Your task to perform on an android device: Open Google Chrome and click the shortcut for Amazon.com Image 0: 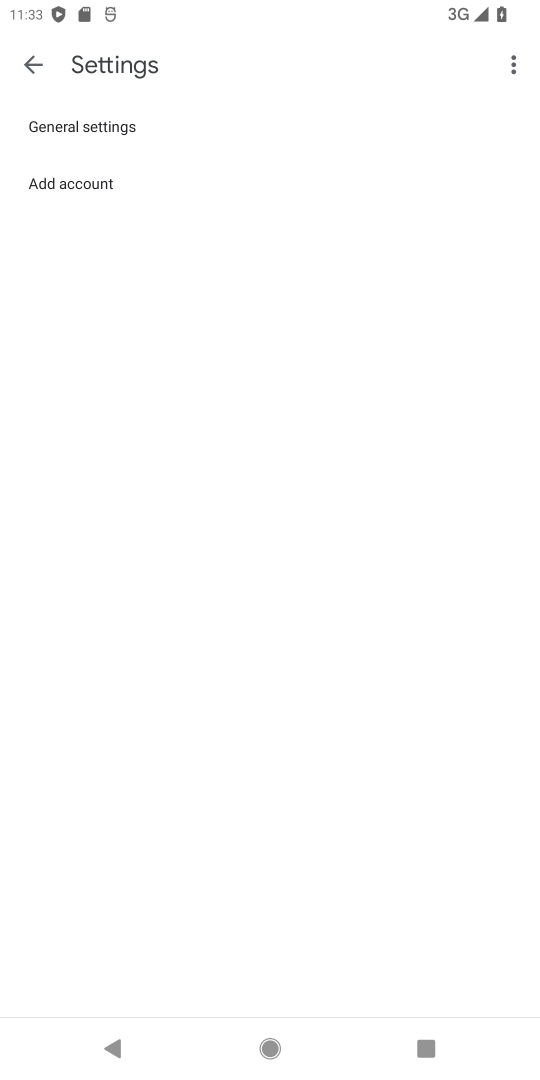
Step 0: press home button
Your task to perform on an android device: Open Google Chrome and click the shortcut for Amazon.com Image 1: 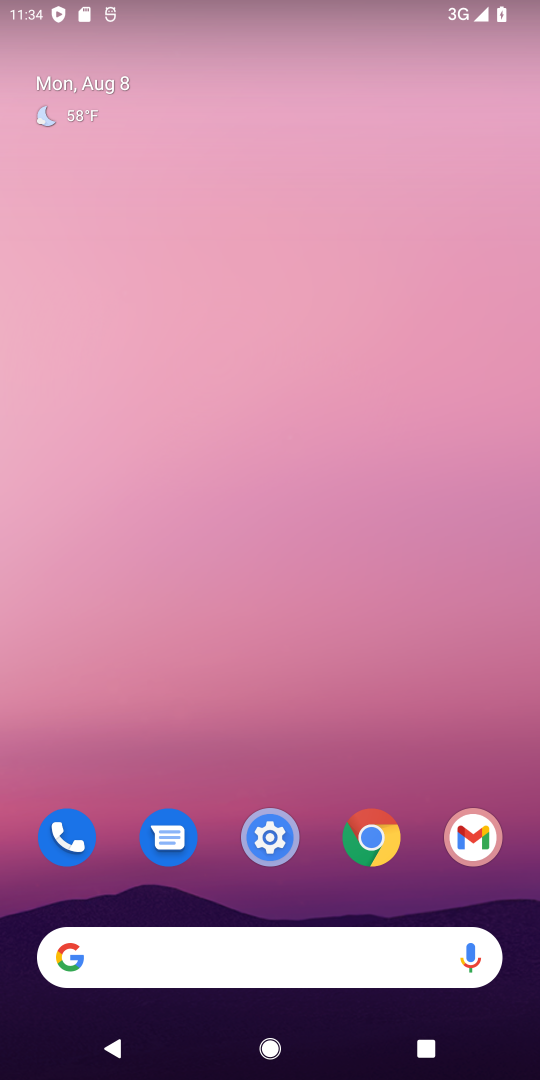
Step 1: click (366, 840)
Your task to perform on an android device: Open Google Chrome and click the shortcut for Amazon.com Image 2: 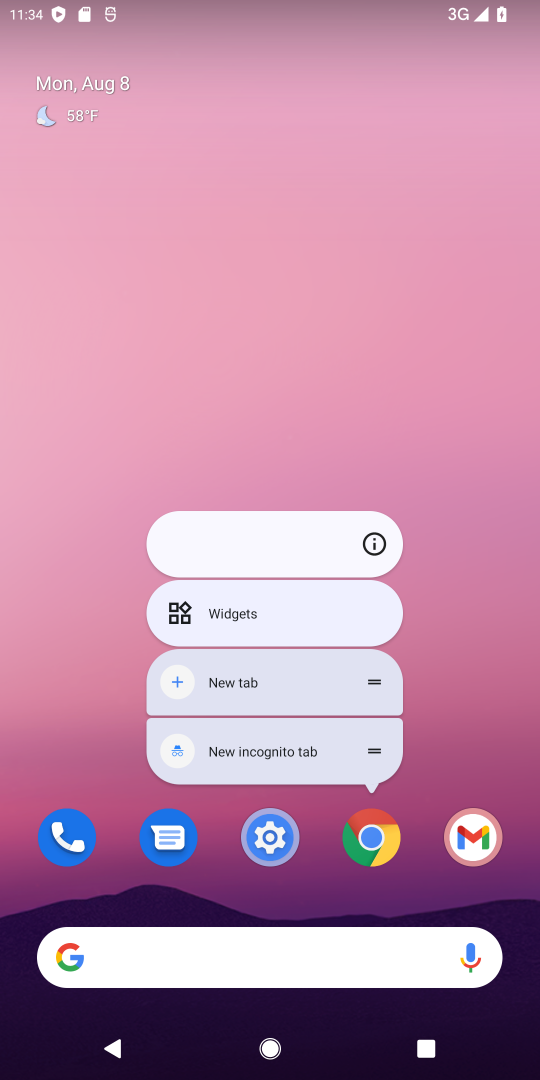
Step 2: click (368, 837)
Your task to perform on an android device: Open Google Chrome and click the shortcut for Amazon.com Image 3: 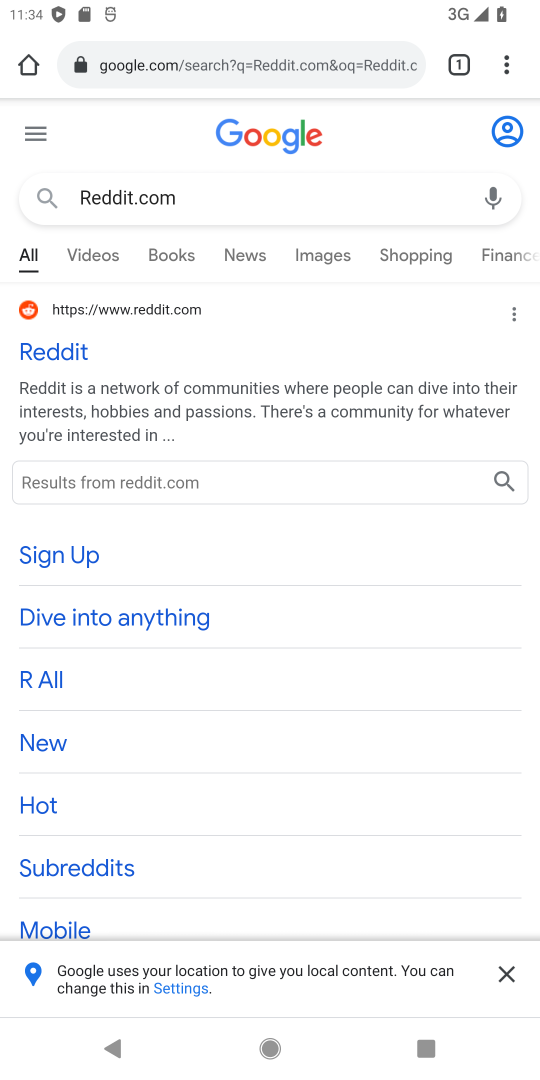
Step 3: click (292, 59)
Your task to perform on an android device: Open Google Chrome and click the shortcut for Amazon.com Image 4: 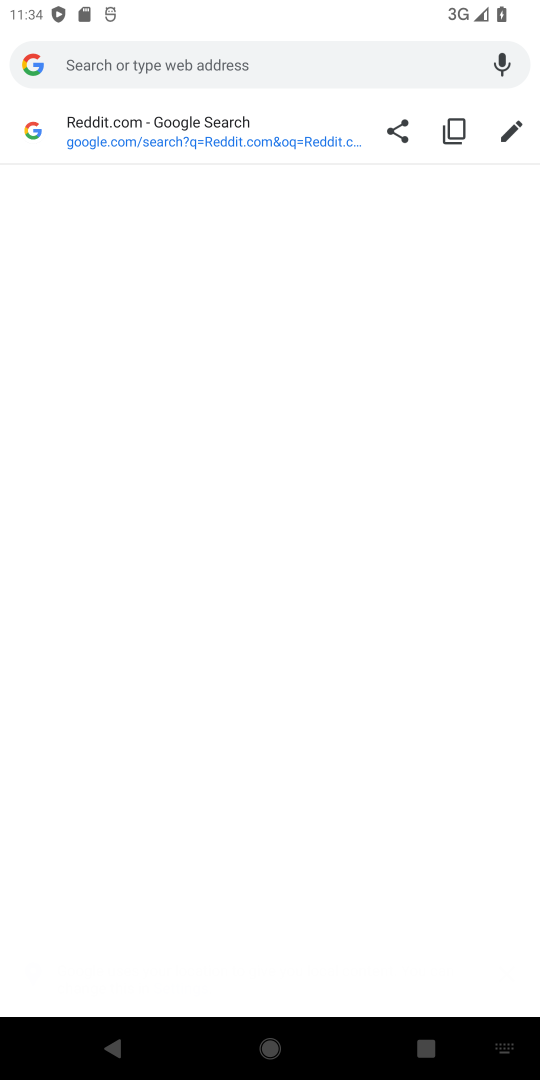
Step 4: type " Amazon.com"
Your task to perform on an android device: Open Google Chrome and click the shortcut for Amazon.com Image 5: 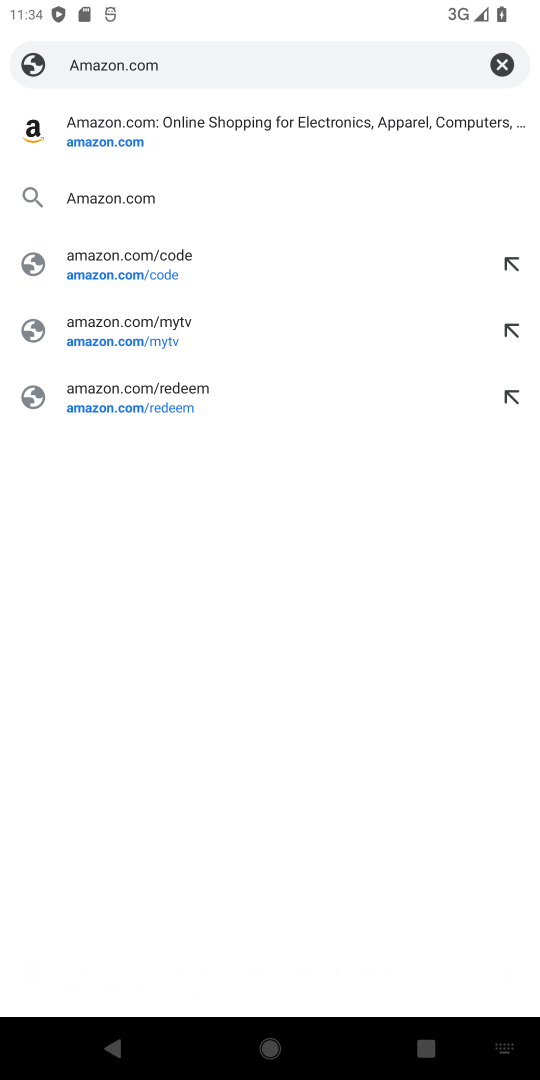
Step 5: click (107, 136)
Your task to perform on an android device: Open Google Chrome and click the shortcut for Amazon.com Image 6: 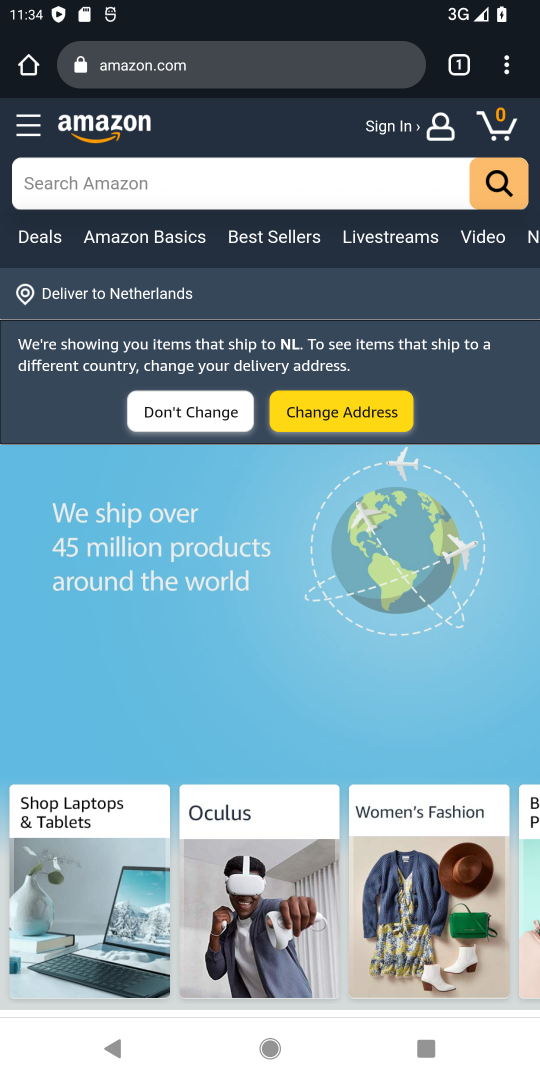
Step 6: task complete